Your task to perform on an android device: Open Google Maps Image 0: 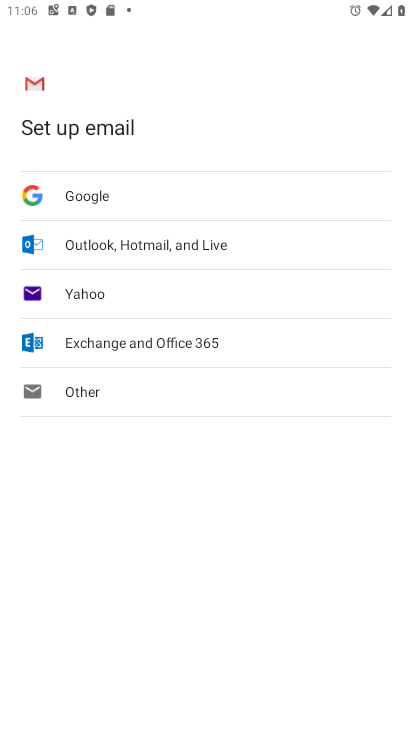
Step 0: press home button
Your task to perform on an android device: Open Google Maps Image 1: 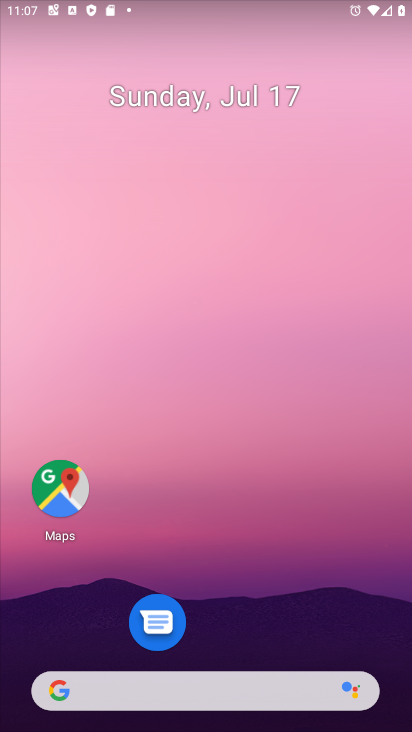
Step 1: click (78, 484)
Your task to perform on an android device: Open Google Maps Image 2: 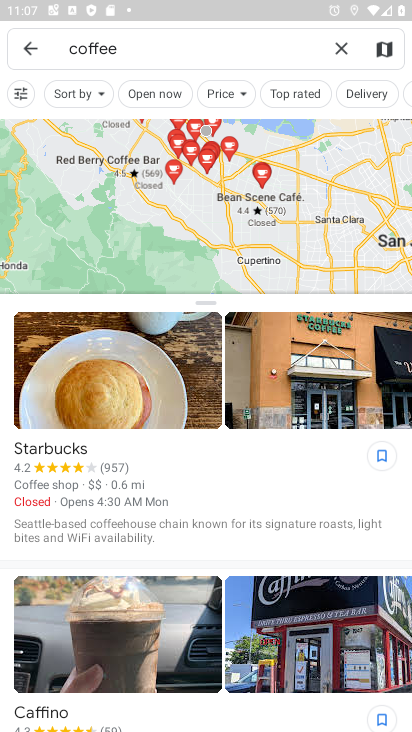
Step 2: task complete